Your task to perform on an android device: snooze an email in the gmail app Image 0: 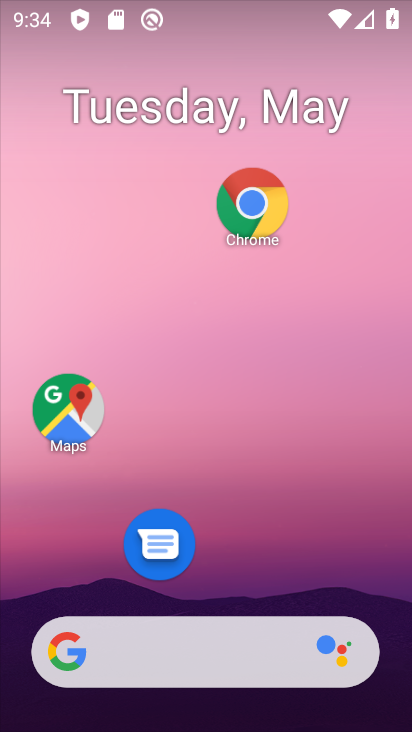
Step 0: drag from (393, 594) to (341, 119)
Your task to perform on an android device: snooze an email in the gmail app Image 1: 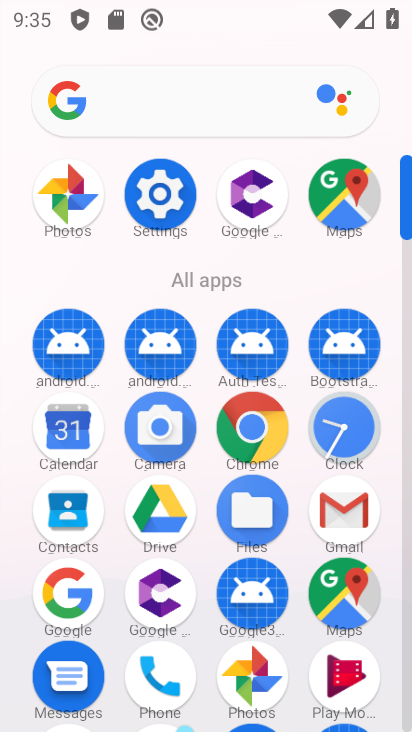
Step 1: click (353, 505)
Your task to perform on an android device: snooze an email in the gmail app Image 2: 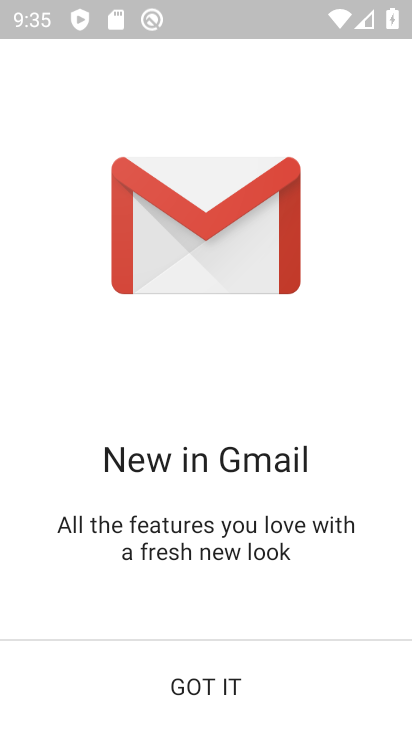
Step 2: click (284, 682)
Your task to perform on an android device: snooze an email in the gmail app Image 3: 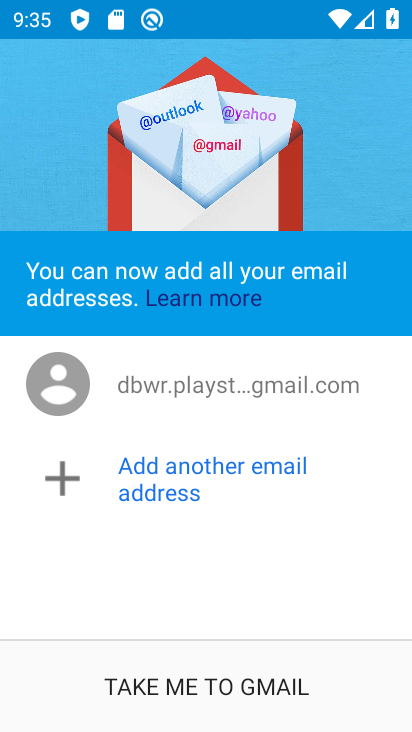
Step 3: click (284, 682)
Your task to perform on an android device: snooze an email in the gmail app Image 4: 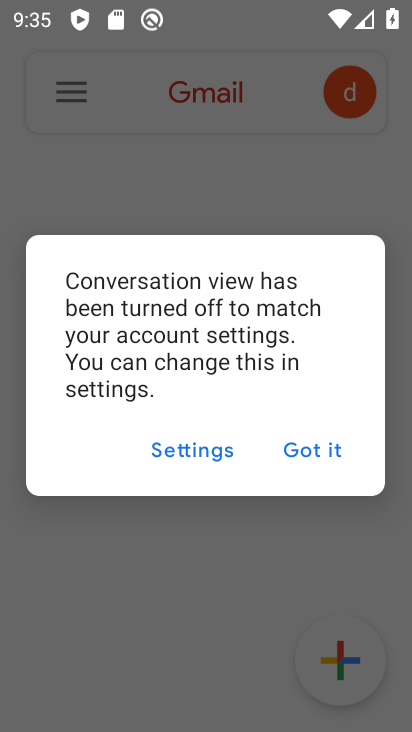
Step 4: click (343, 464)
Your task to perform on an android device: snooze an email in the gmail app Image 5: 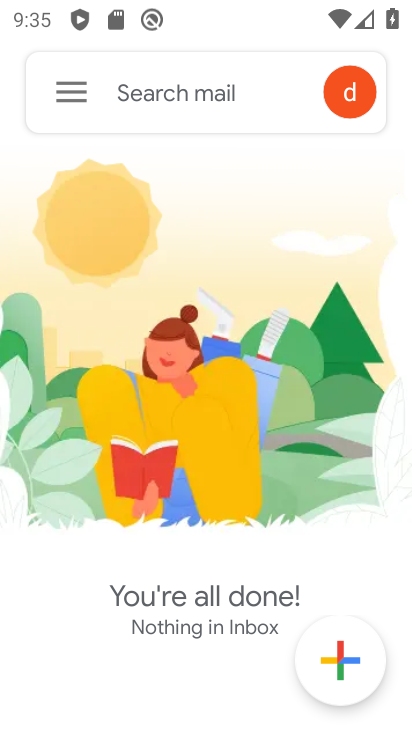
Step 5: task complete